Your task to perform on an android device: Open Wikipedia Image 0: 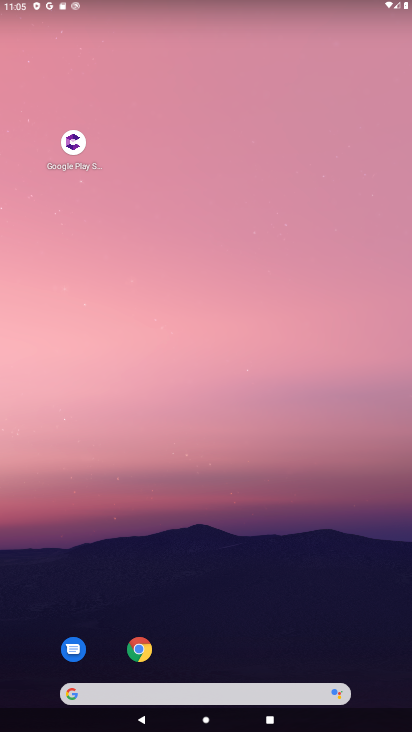
Step 0: click (142, 649)
Your task to perform on an android device: Open Wikipedia Image 1: 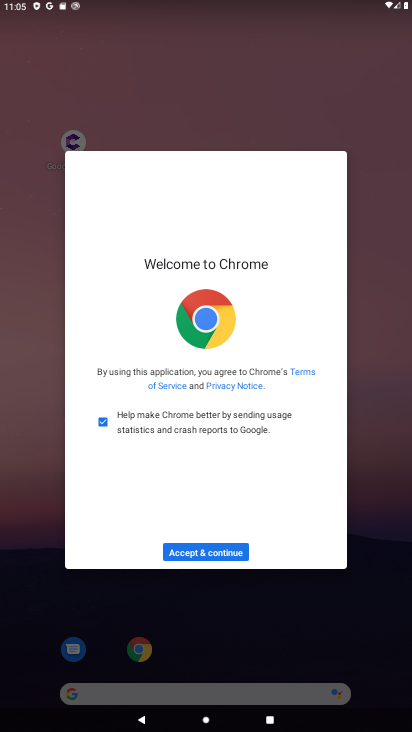
Step 1: click (225, 547)
Your task to perform on an android device: Open Wikipedia Image 2: 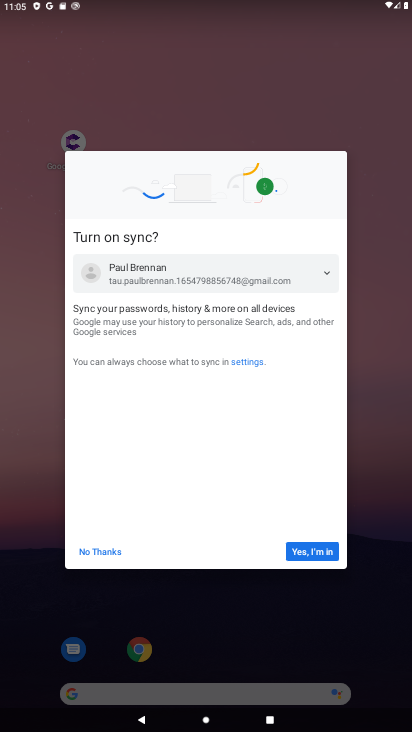
Step 2: click (306, 550)
Your task to perform on an android device: Open Wikipedia Image 3: 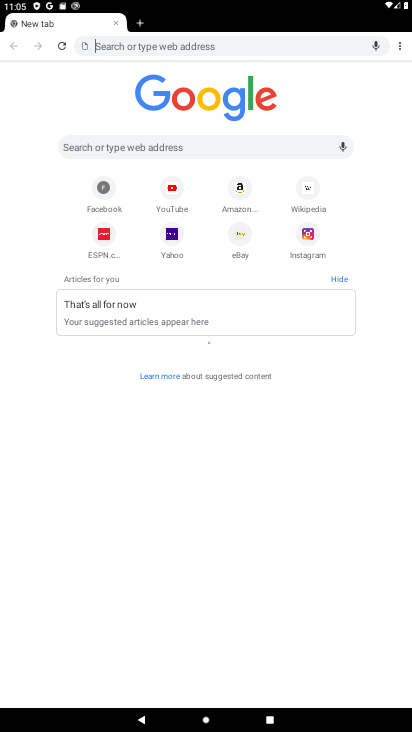
Step 3: click (308, 191)
Your task to perform on an android device: Open Wikipedia Image 4: 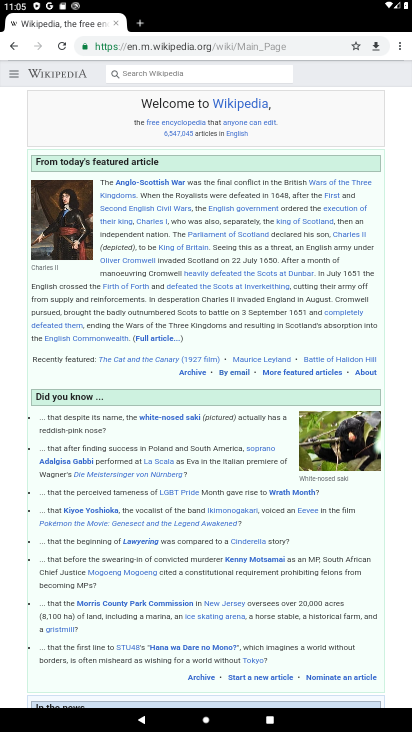
Step 4: task complete